Your task to perform on an android device: Open ESPN.com Image 0: 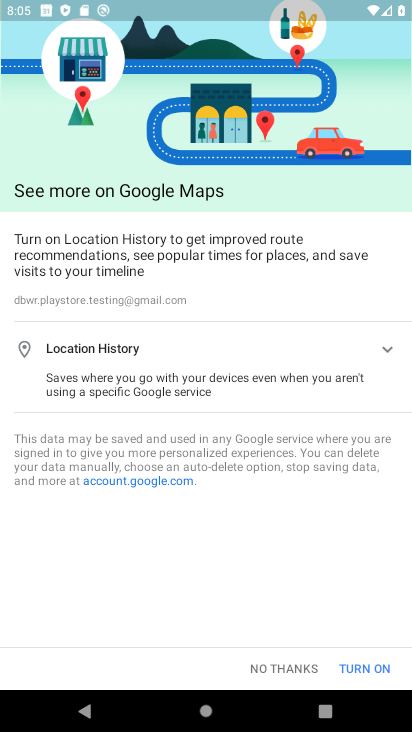
Step 0: press home button
Your task to perform on an android device: Open ESPN.com Image 1: 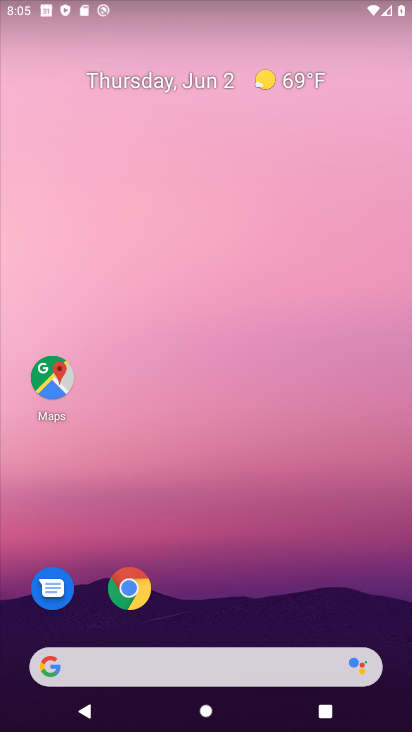
Step 1: click (133, 588)
Your task to perform on an android device: Open ESPN.com Image 2: 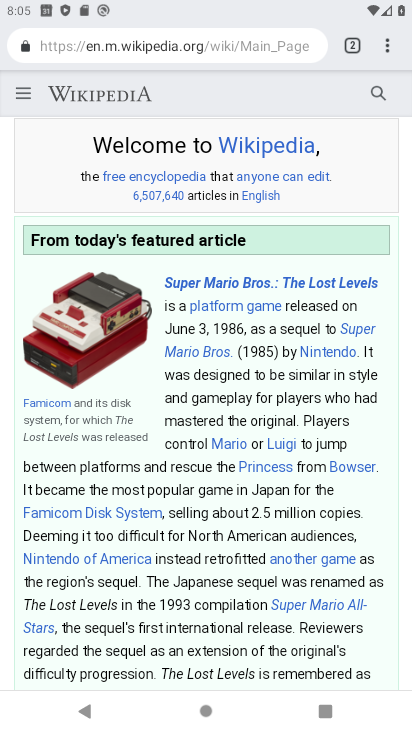
Step 2: click (388, 49)
Your task to perform on an android device: Open ESPN.com Image 3: 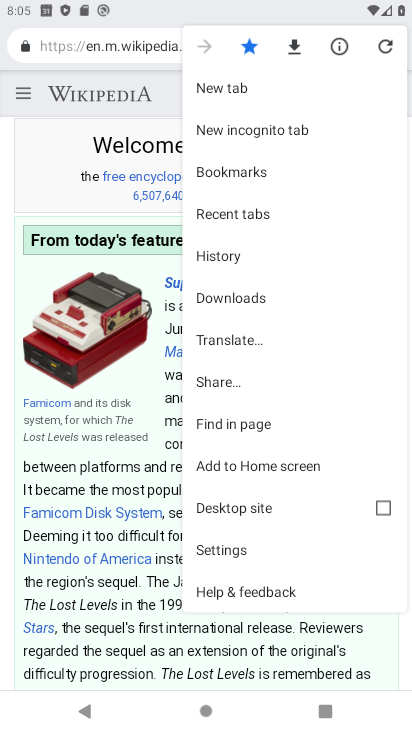
Step 3: click (217, 88)
Your task to perform on an android device: Open ESPN.com Image 4: 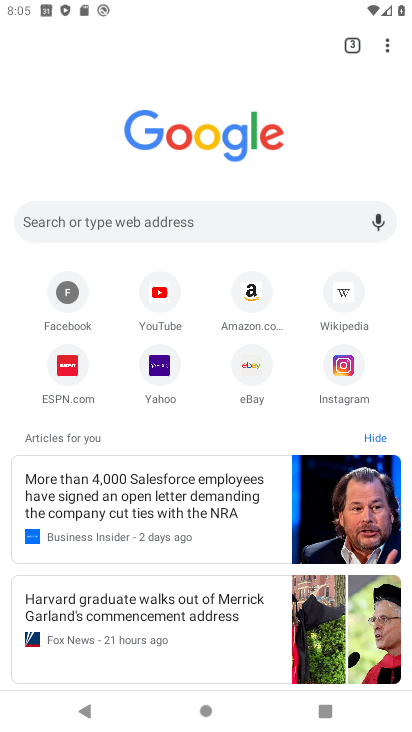
Step 4: click (71, 368)
Your task to perform on an android device: Open ESPN.com Image 5: 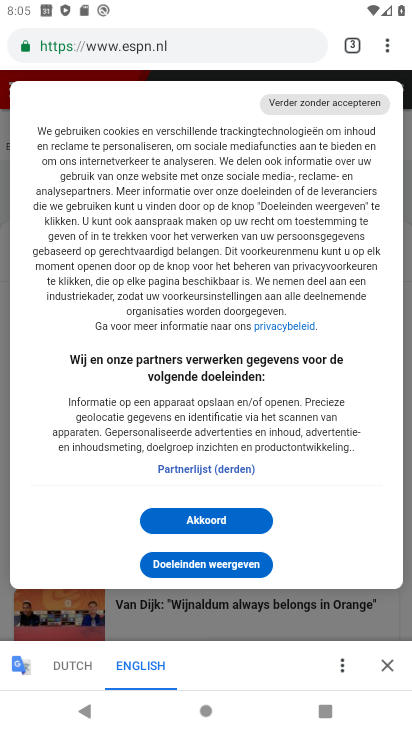
Step 5: click (201, 517)
Your task to perform on an android device: Open ESPN.com Image 6: 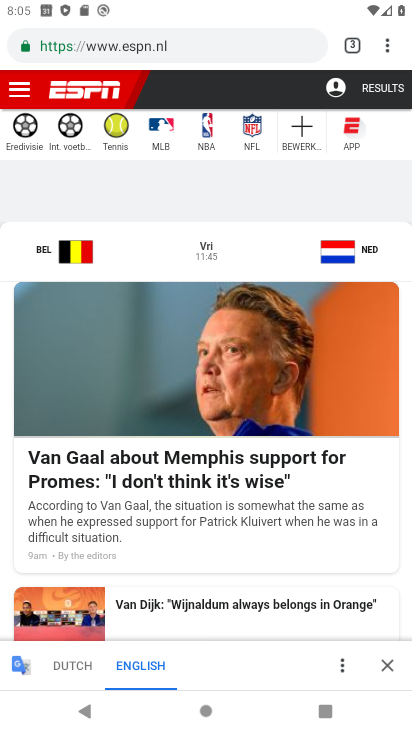
Step 6: task complete